Your task to perform on an android device: toggle sleep mode Image 0: 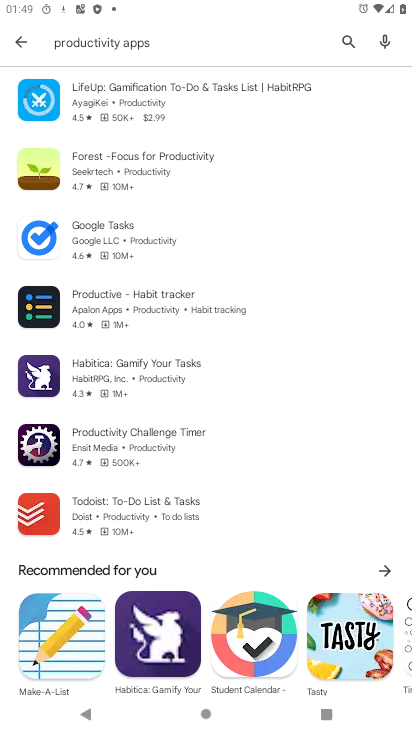
Step 0: press home button
Your task to perform on an android device: toggle sleep mode Image 1: 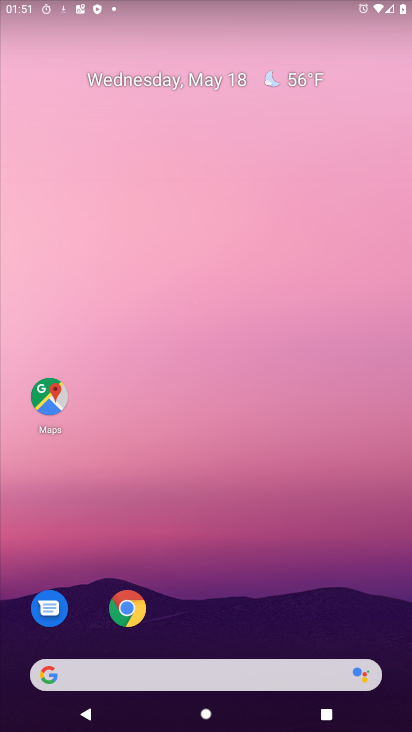
Step 1: drag from (276, 696) to (241, 231)
Your task to perform on an android device: toggle sleep mode Image 2: 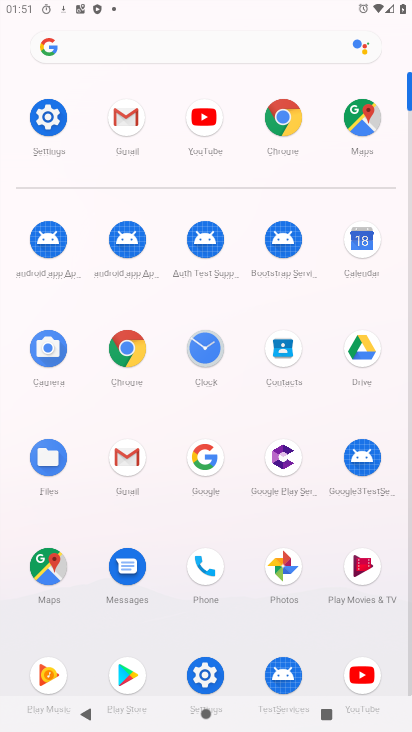
Step 2: click (60, 120)
Your task to perform on an android device: toggle sleep mode Image 3: 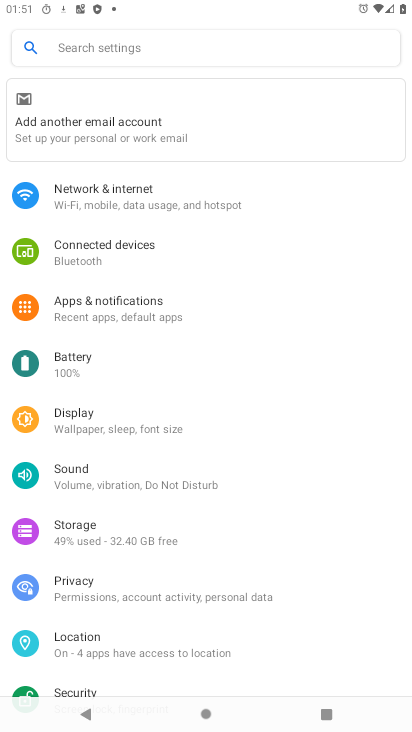
Step 3: click (102, 50)
Your task to perform on an android device: toggle sleep mode Image 4: 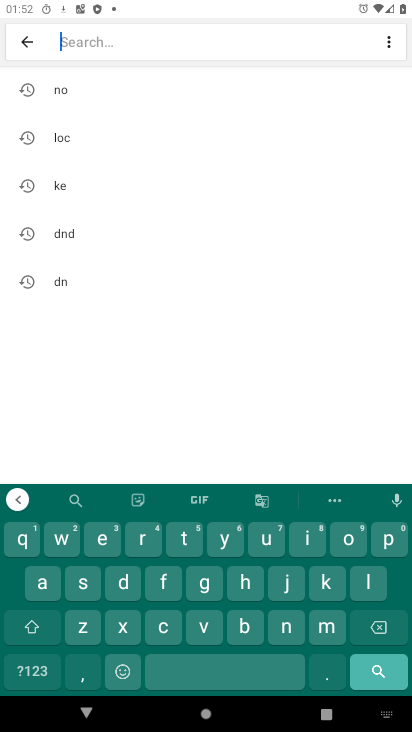
Step 4: click (89, 583)
Your task to perform on an android device: toggle sleep mode Image 5: 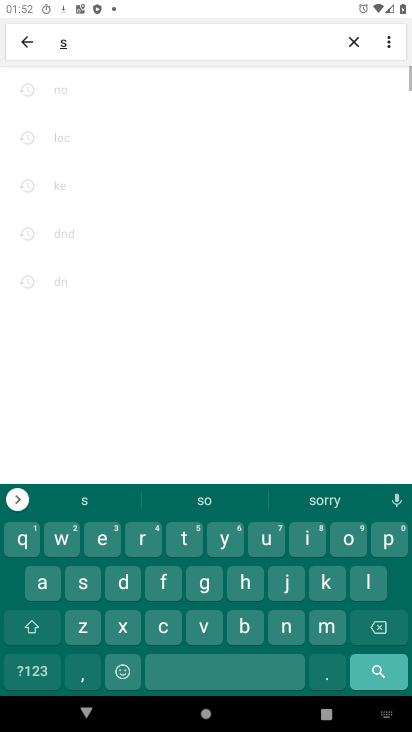
Step 5: click (369, 597)
Your task to perform on an android device: toggle sleep mode Image 6: 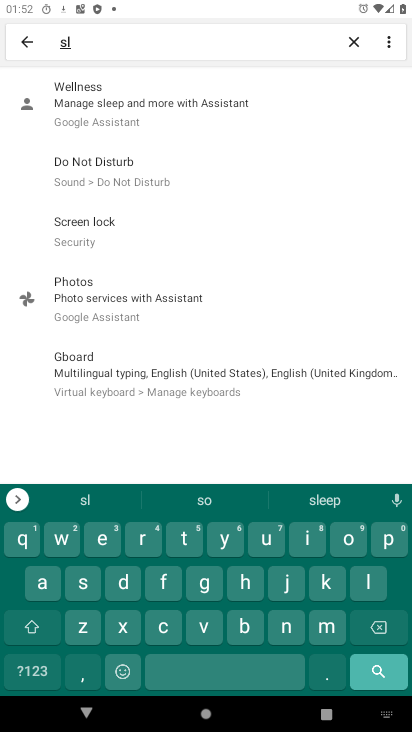
Step 6: click (134, 120)
Your task to perform on an android device: toggle sleep mode Image 7: 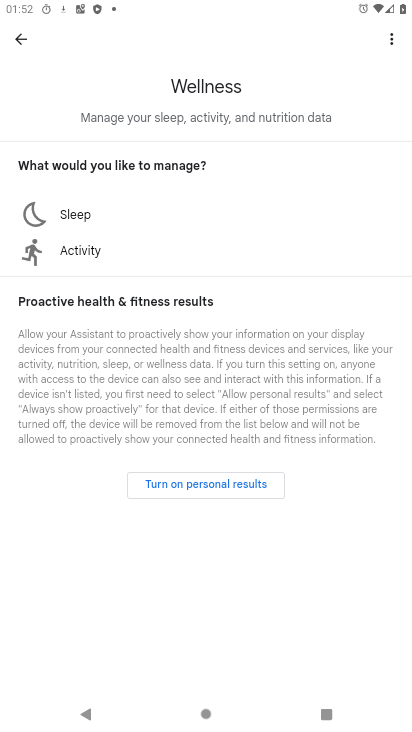
Step 7: click (106, 209)
Your task to perform on an android device: toggle sleep mode Image 8: 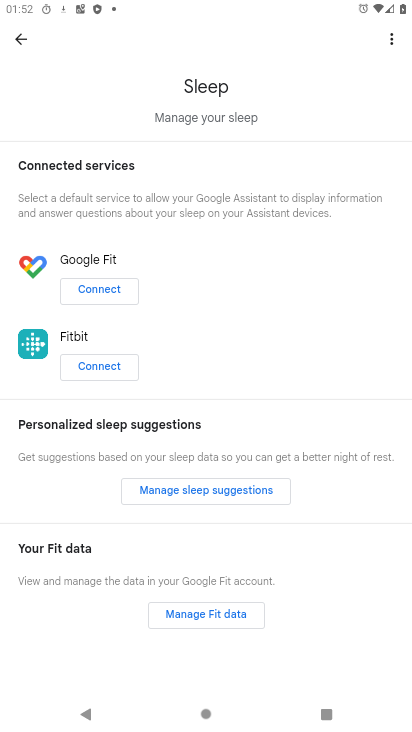
Step 8: task complete